Your task to perform on an android device: search for starred emails in the gmail app Image 0: 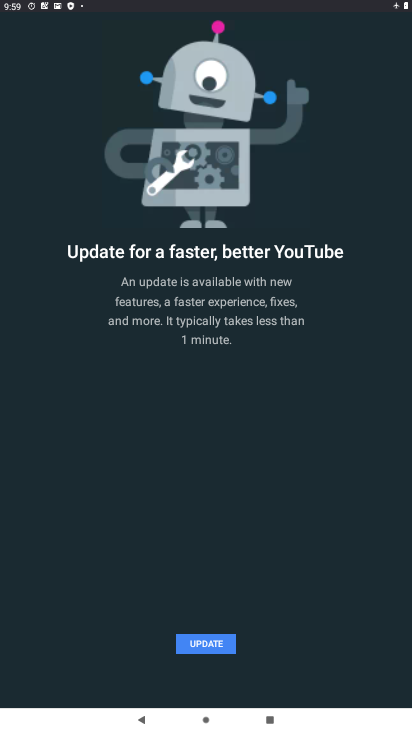
Step 0: drag from (198, 666) to (212, 268)
Your task to perform on an android device: search for starred emails in the gmail app Image 1: 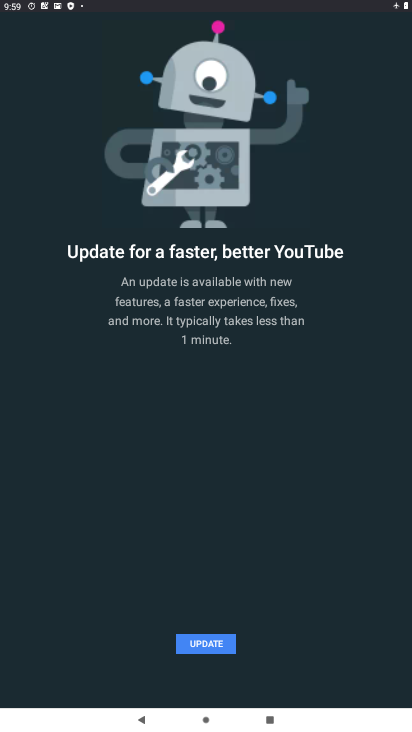
Step 1: press home button
Your task to perform on an android device: search for starred emails in the gmail app Image 2: 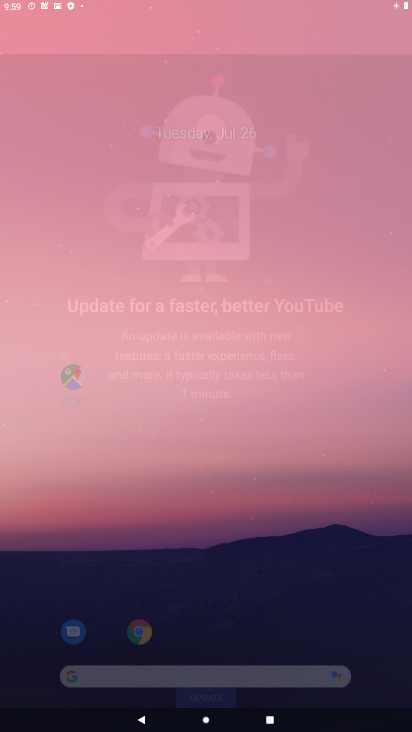
Step 2: drag from (211, 615) to (252, 175)
Your task to perform on an android device: search for starred emails in the gmail app Image 3: 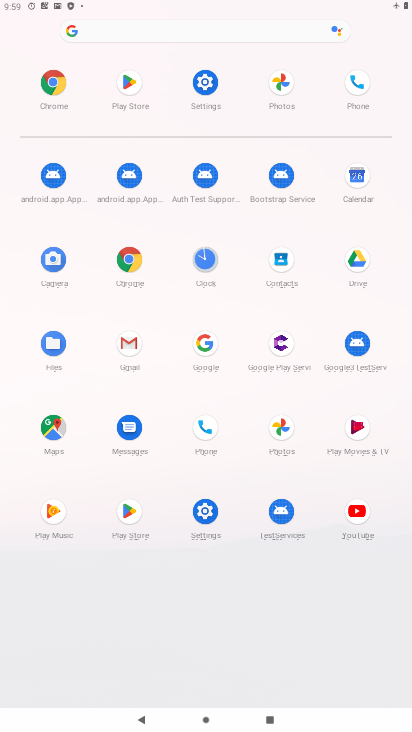
Step 3: click (122, 346)
Your task to perform on an android device: search for starred emails in the gmail app Image 4: 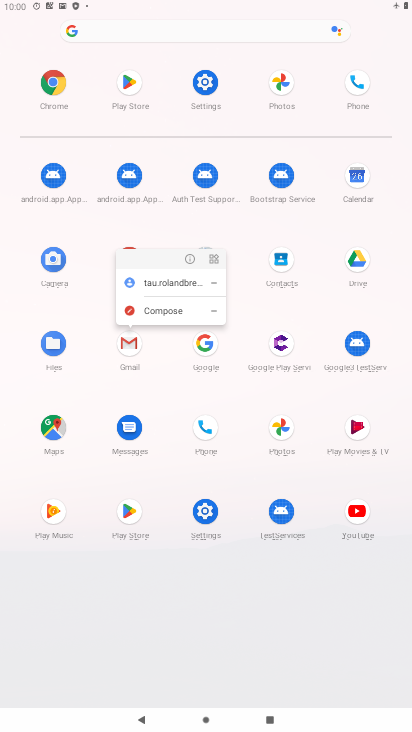
Step 4: click (191, 264)
Your task to perform on an android device: search for starred emails in the gmail app Image 5: 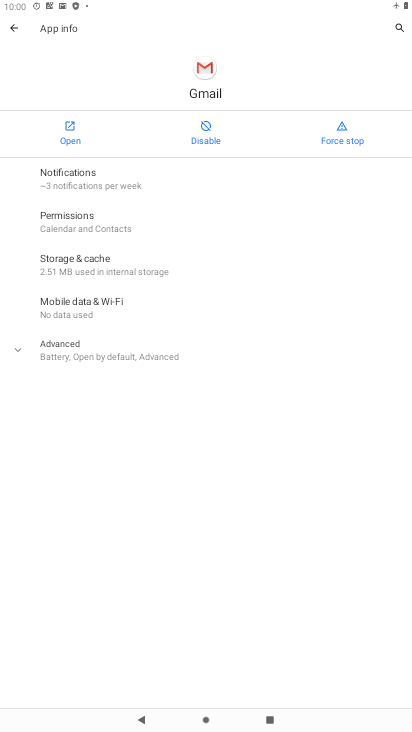
Step 5: click (74, 138)
Your task to perform on an android device: search for starred emails in the gmail app Image 6: 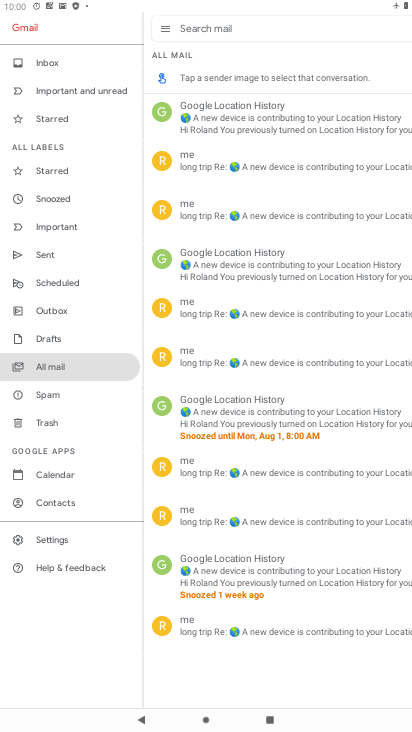
Step 6: click (46, 173)
Your task to perform on an android device: search for starred emails in the gmail app Image 7: 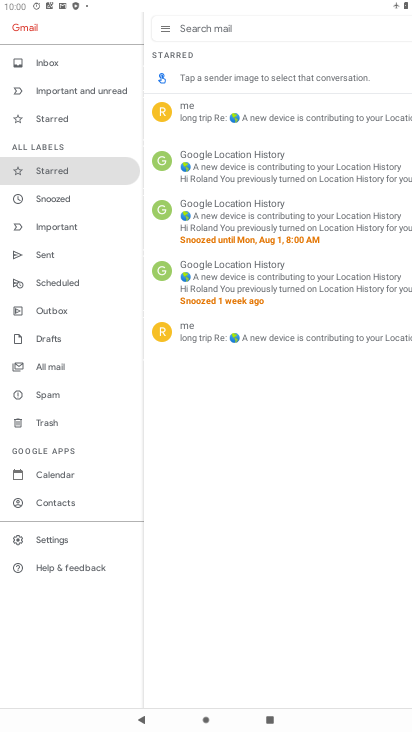
Step 7: task complete